Your task to perform on an android device: Go to Android settings Image 0: 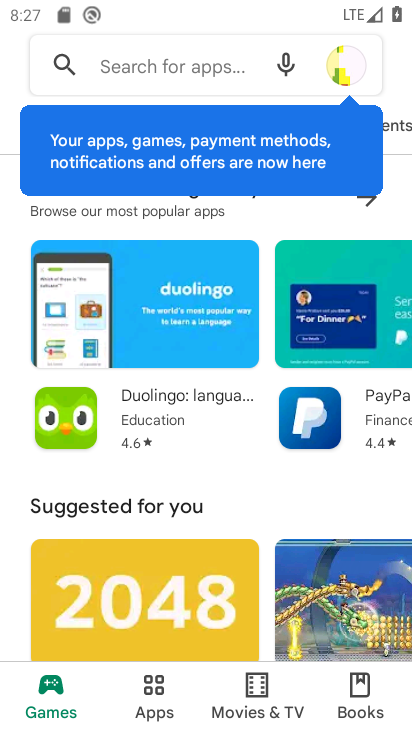
Step 0: press home button
Your task to perform on an android device: Go to Android settings Image 1: 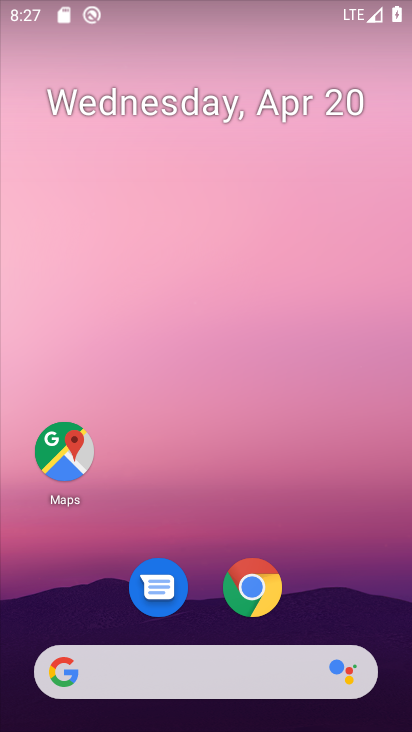
Step 1: drag from (364, 594) to (362, 197)
Your task to perform on an android device: Go to Android settings Image 2: 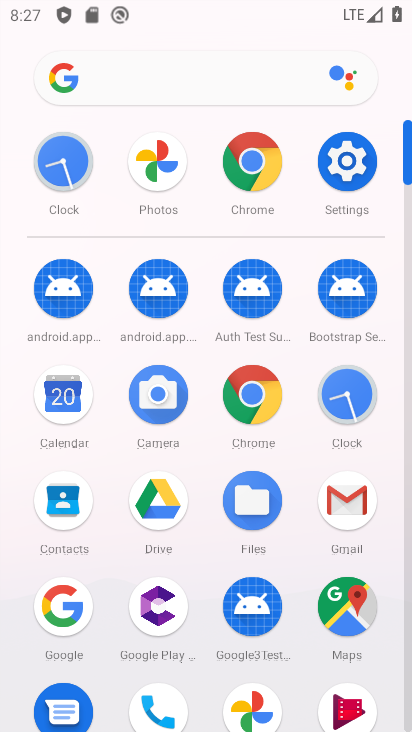
Step 2: click (359, 173)
Your task to perform on an android device: Go to Android settings Image 3: 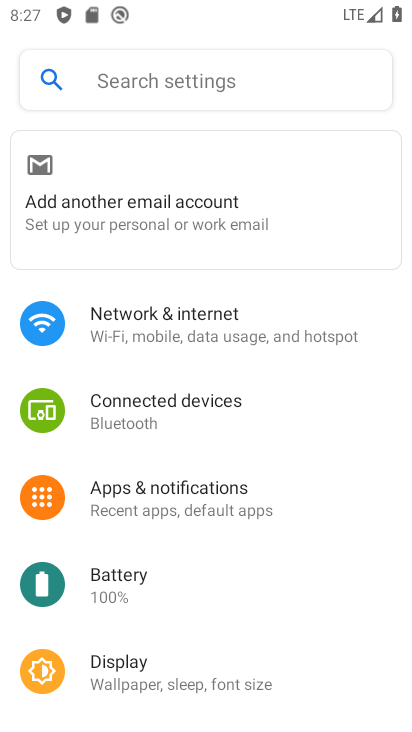
Step 3: drag from (326, 562) to (335, 434)
Your task to perform on an android device: Go to Android settings Image 4: 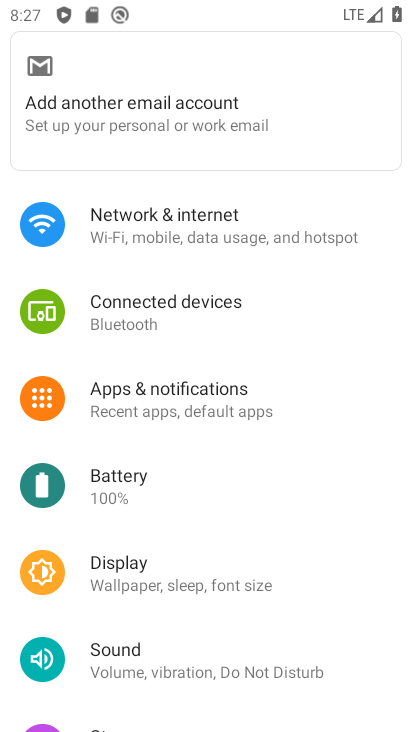
Step 4: drag from (331, 583) to (350, 423)
Your task to perform on an android device: Go to Android settings Image 5: 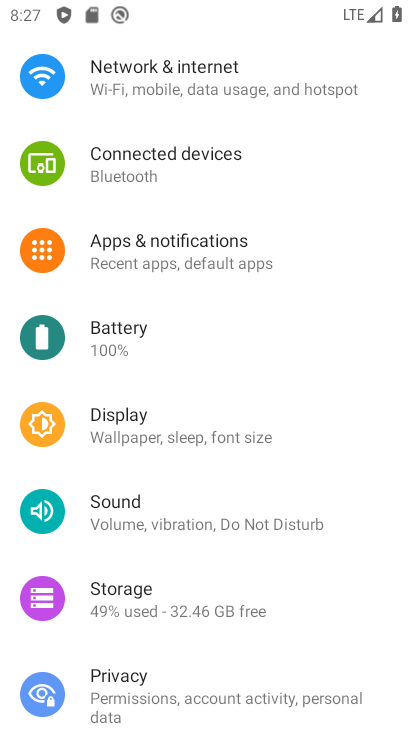
Step 5: drag from (347, 601) to (355, 362)
Your task to perform on an android device: Go to Android settings Image 6: 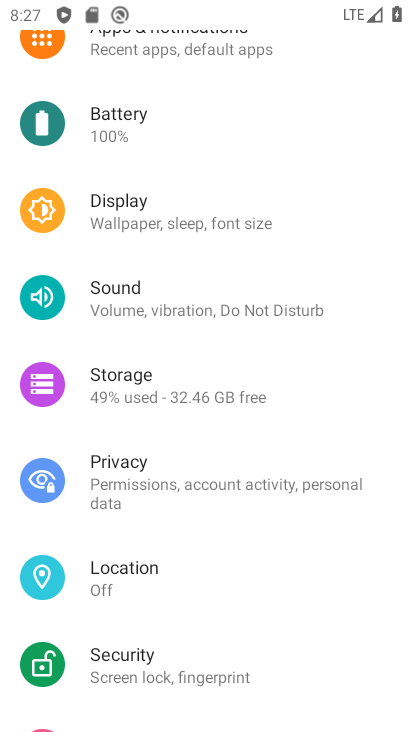
Step 6: drag from (371, 567) to (373, 393)
Your task to perform on an android device: Go to Android settings Image 7: 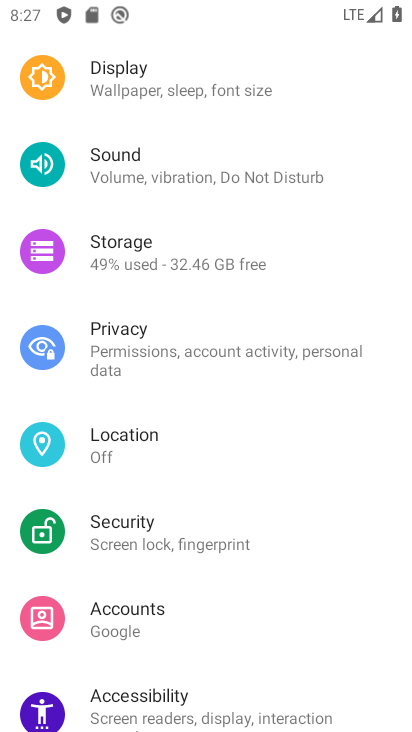
Step 7: drag from (364, 599) to (366, 386)
Your task to perform on an android device: Go to Android settings Image 8: 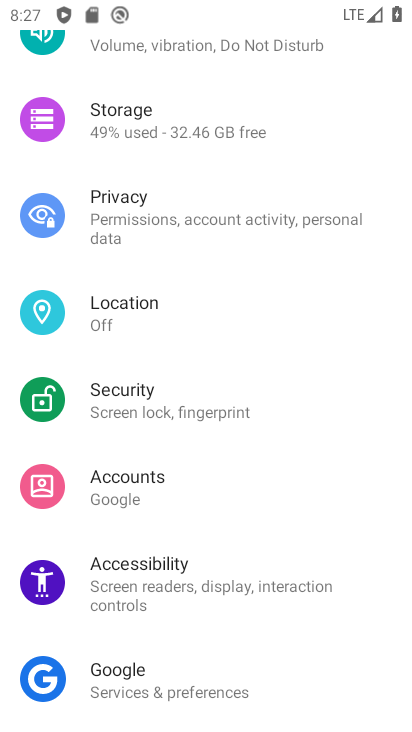
Step 8: drag from (366, 624) to (365, 479)
Your task to perform on an android device: Go to Android settings Image 9: 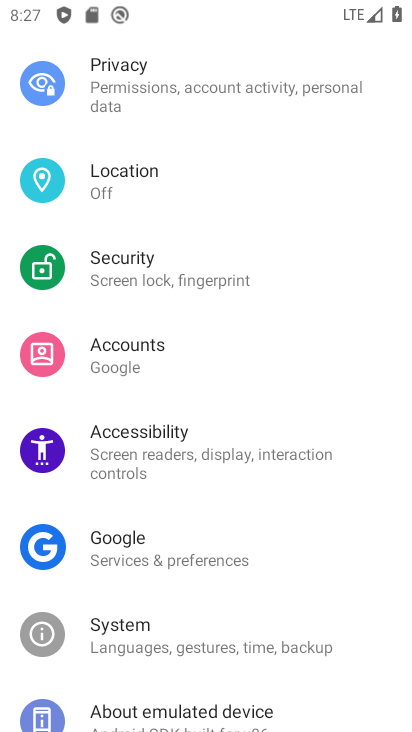
Step 9: drag from (364, 658) to (372, 495)
Your task to perform on an android device: Go to Android settings Image 10: 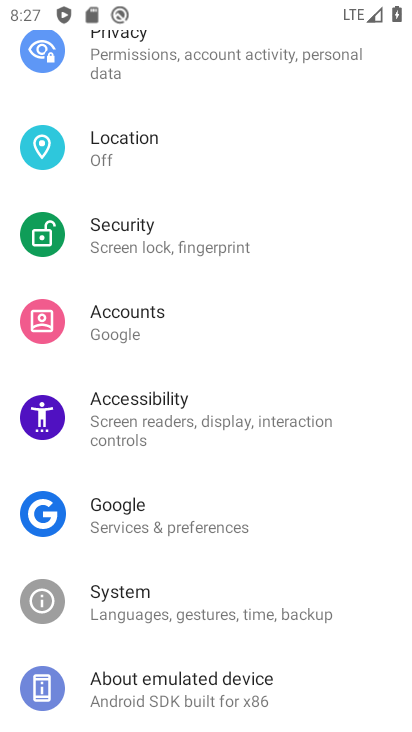
Step 10: click (308, 620)
Your task to perform on an android device: Go to Android settings Image 11: 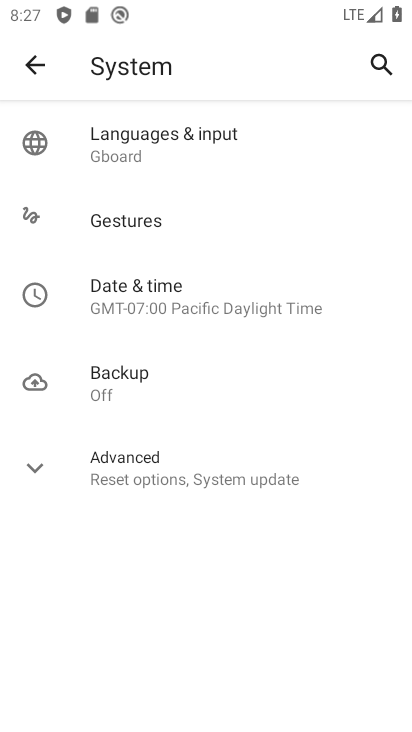
Step 11: click (257, 474)
Your task to perform on an android device: Go to Android settings Image 12: 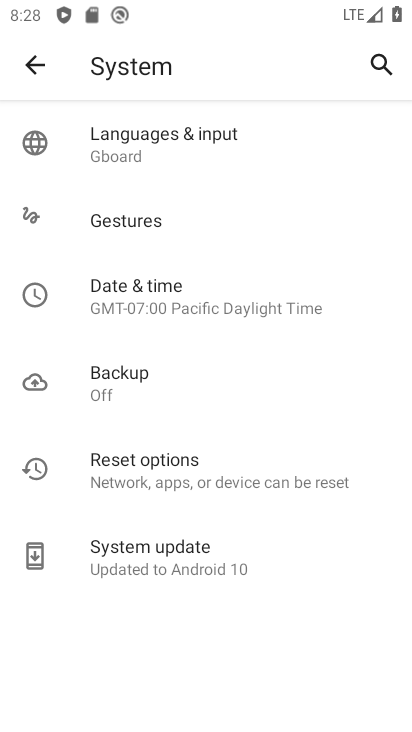
Step 12: task complete